Your task to perform on an android device: turn off wifi Image 0: 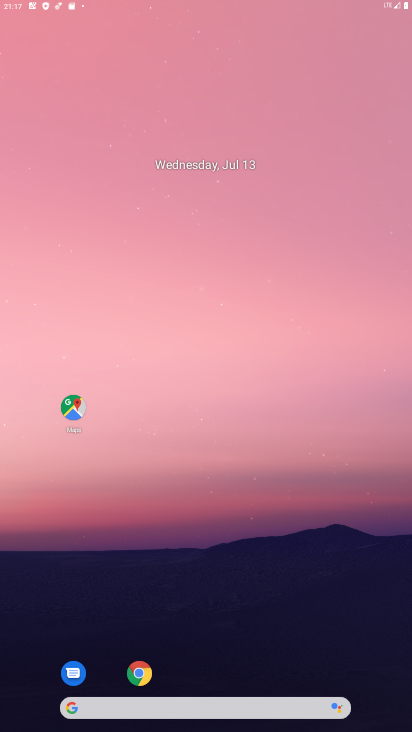
Step 0: click (296, 342)
Your task to perform on an android device: turn off wifi Image 1: 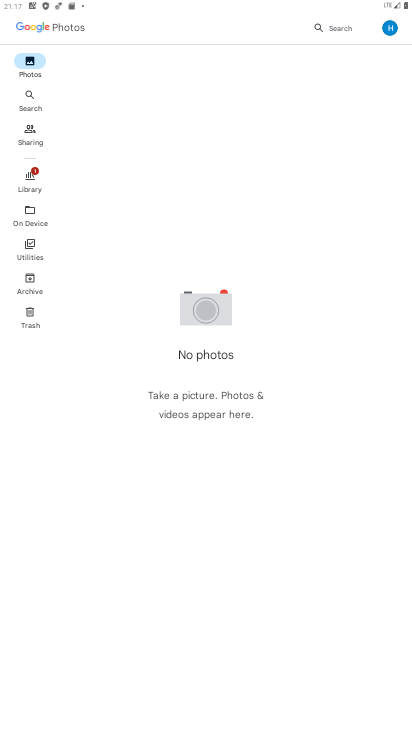
Step 1: click (386, 24)
Your task to perform on an android device: turn off wifi Image 2: 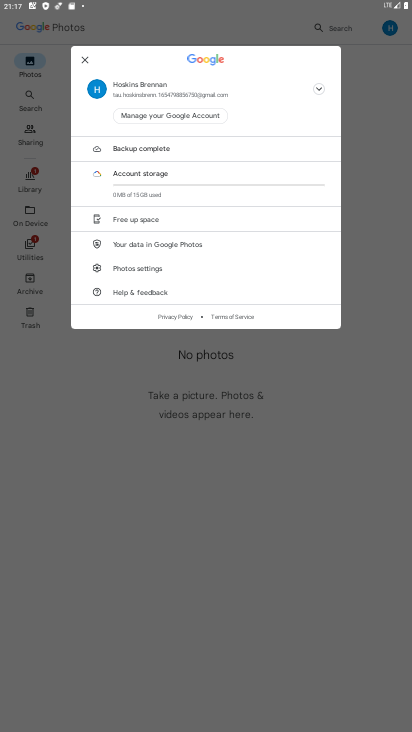
Step 2: click (151, 262)
Your task to perform on an android device: turn off wifi Image 3: 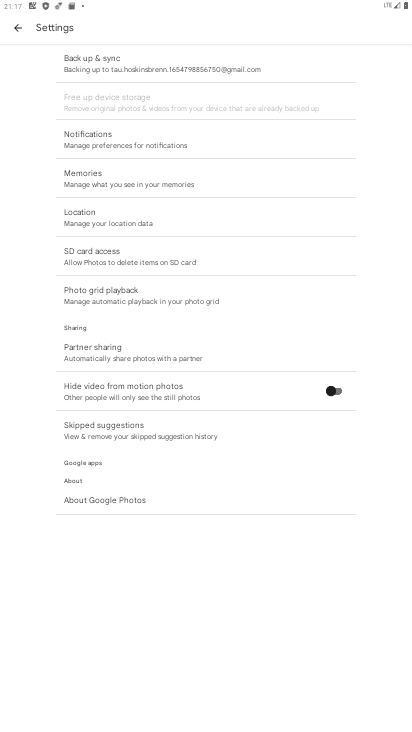
Step 3: click (109, 64)
Your task to perform on an android device: turn off wifi Image 4: 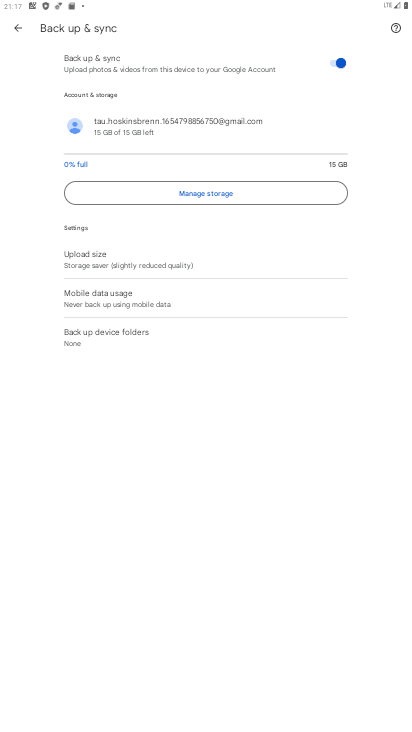
Step 4: drag from (191, 71) to (263, 347)
Your task to perform on an android device: turn off wifi Image 5: 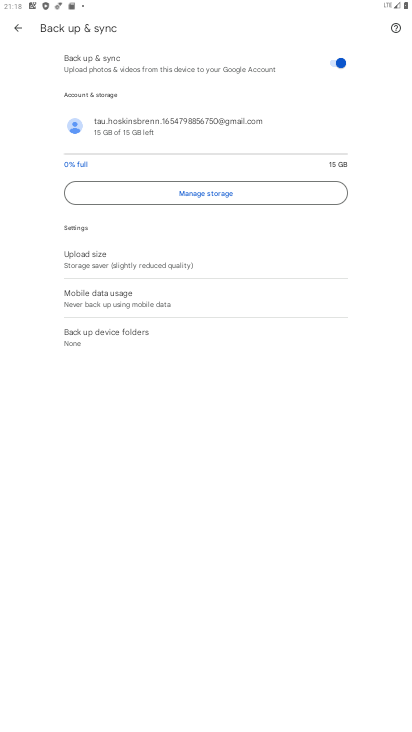
Step 5: drag from (132, 82) to (206, 397)
Your task to perform on an android device: turn off wifi Image 6: 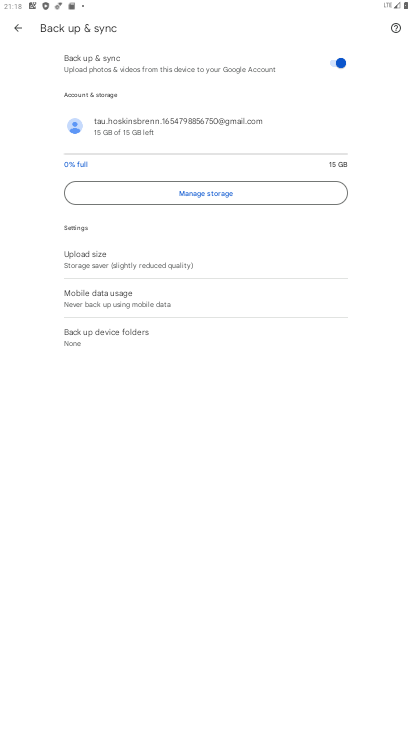
Step 6: press home button
Your task to perform on an android device: turn off wifi Image 7: 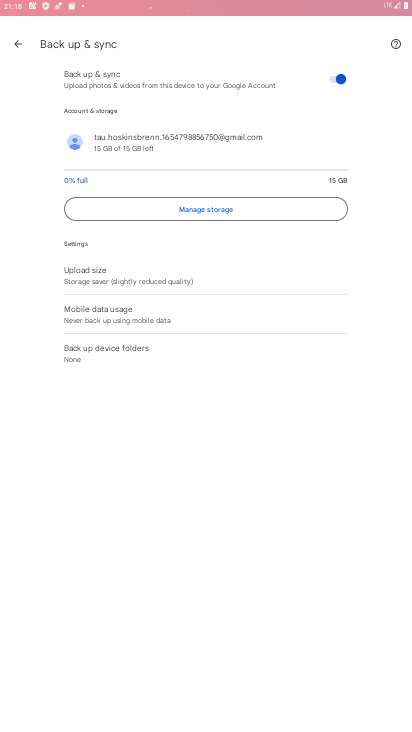
Step 7: drag from (244, 531) to (241, 182)
Your task to perform on an android device: turn off wifi Image 8: 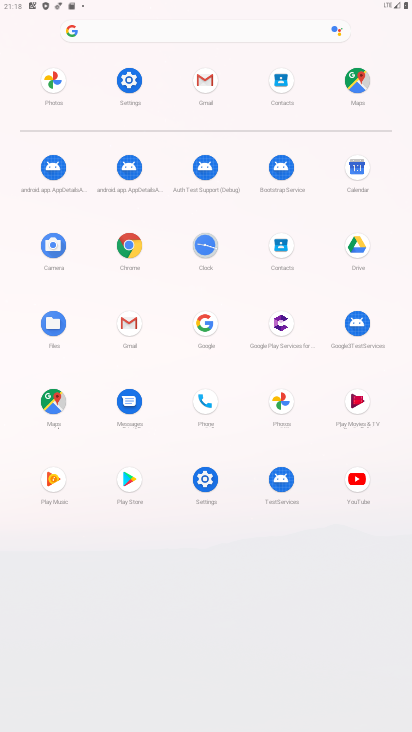
Step 8: click (123, 77)
Your task to perform on an android device: turn off wifi Image 9: 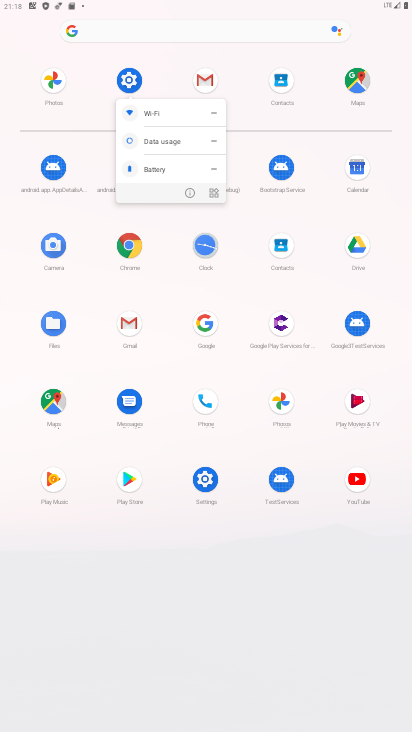
Step 9: click (154, 121)
Your task to perform on an android device: turn off wifi Image 10: 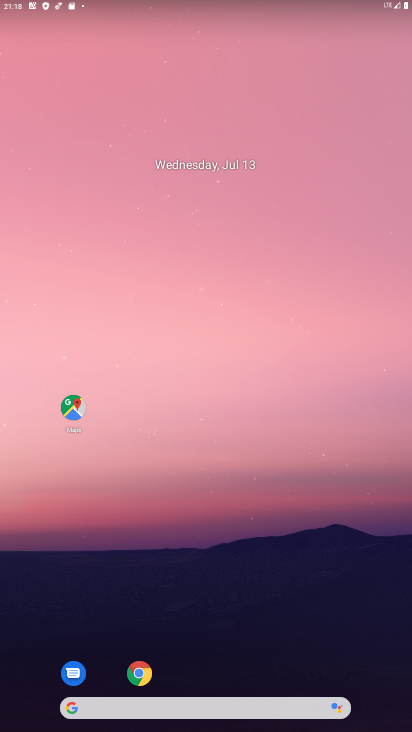
Step 10: drag from (187, 676) to (187, 406)
Your task to perform on an android device: turn off wifi Image 11: 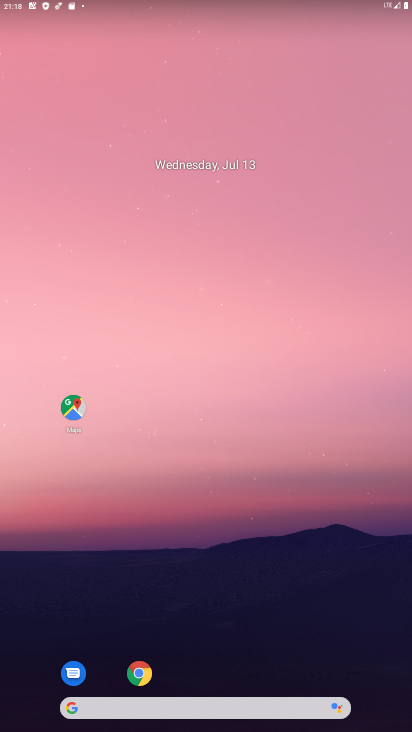
Step 11: drag from (186, 594) to (214, 243)
Your task to perform on an android device: turn off wifi Image 12: 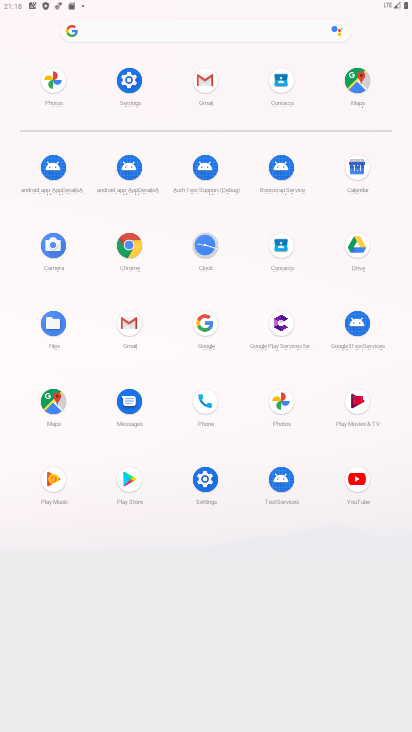
Step 12: click (129, 86)
Your task to perform on an android device: turn off wifi Image 13: 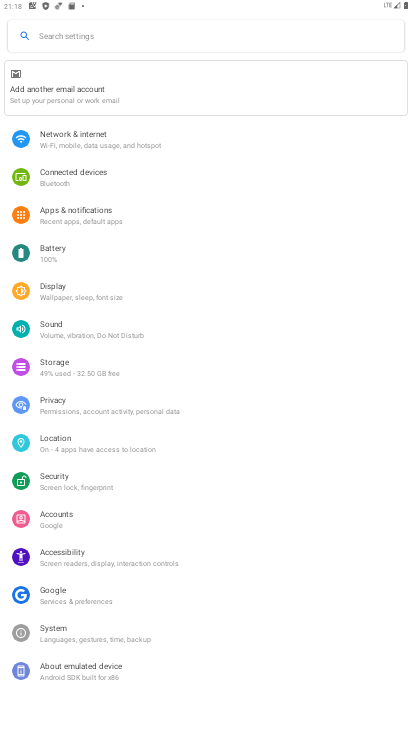
Step 13: click (88, 151)
Your task to perform on an android device: turn off wifi Image 14: 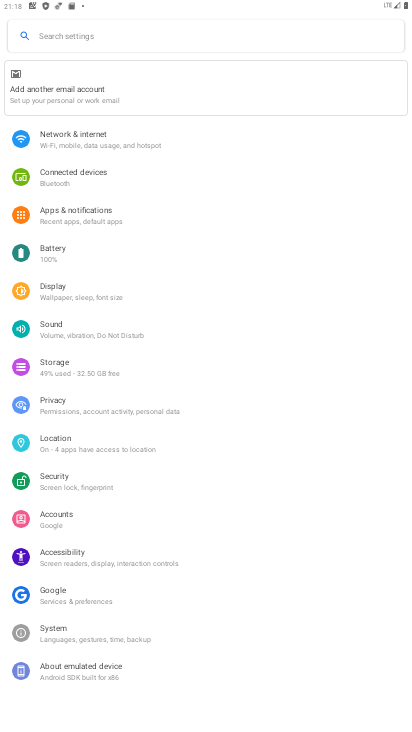
Step 14: click (88, 151)
Your task to perform on an android device: turn off wifi Image 15: 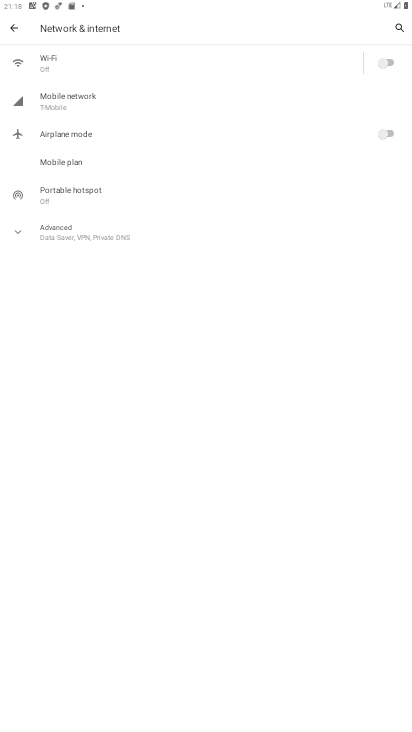
Step 15: click (116, 70)
Your task to perform on an android device: turn off wifi Image 16: 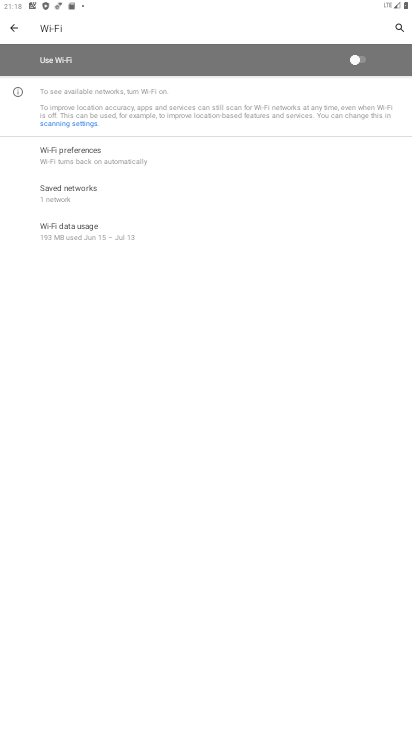
Step 16: task complete